Your task to perform on an android device: star an email in the gmail app Image 0: 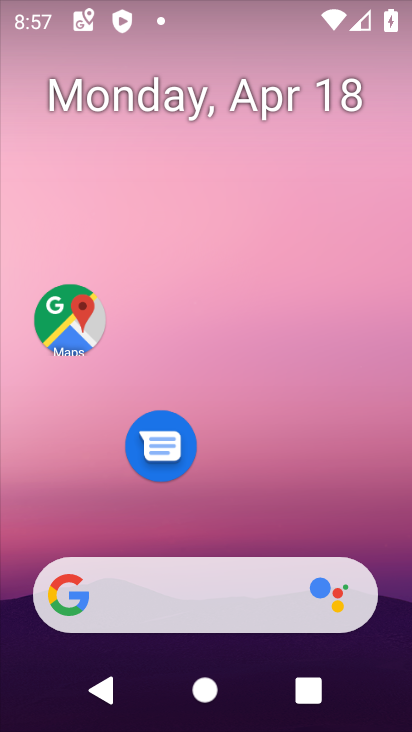
Step 0: drag from (217, 523) to (223, 0)
Your task to perform on an android device: star an email in the gmail app Image 1: 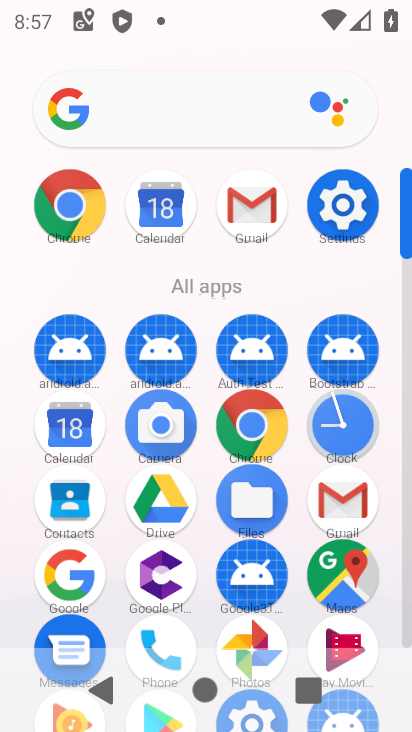
Step 1: click (347, 489)
Your task to perform on an android device: star an email in the gmail app Image 2: 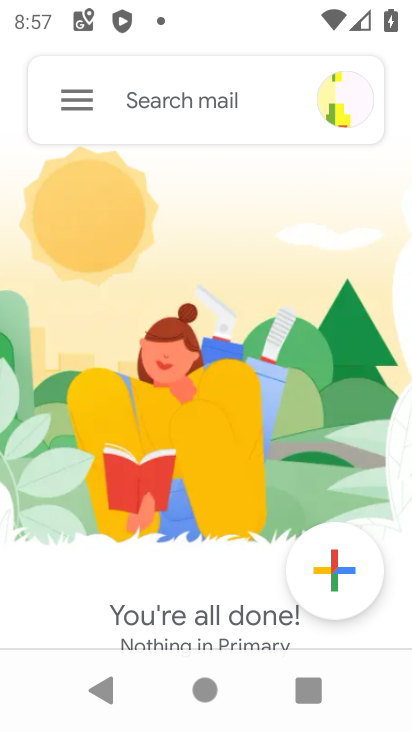
Step 2: click (69, 98)
Your task to perform on an android device: star an email in the gmail app Image 3: 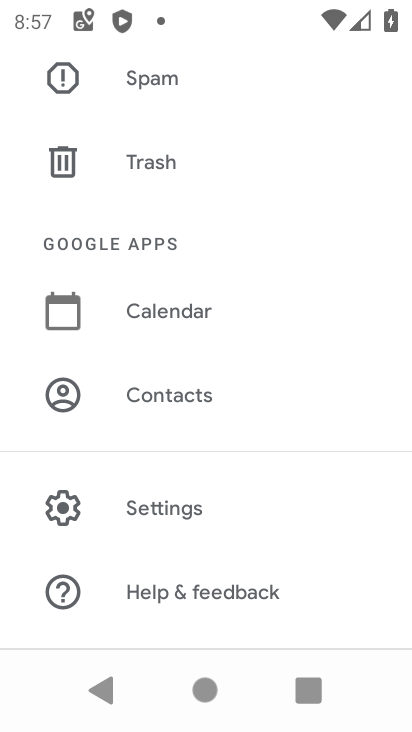
Step 3: drag from (153, 128) to (150, 395)
Your task to perform on an android device: star an email in the gmail app Image 4: 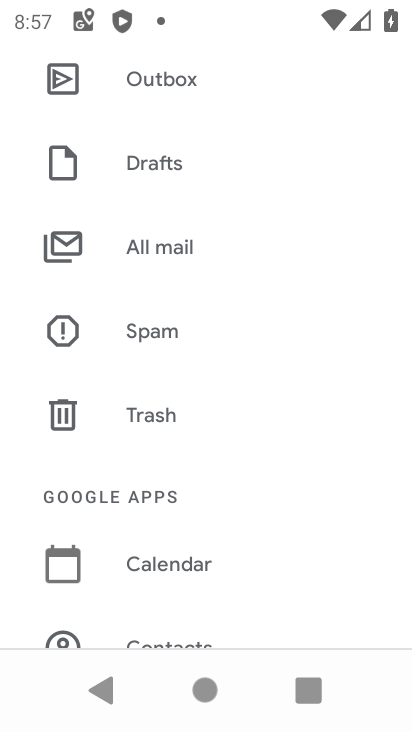
Step 4: click (104, 241)
Your task to perform on an android device: star an email in the gmail app Image 5: 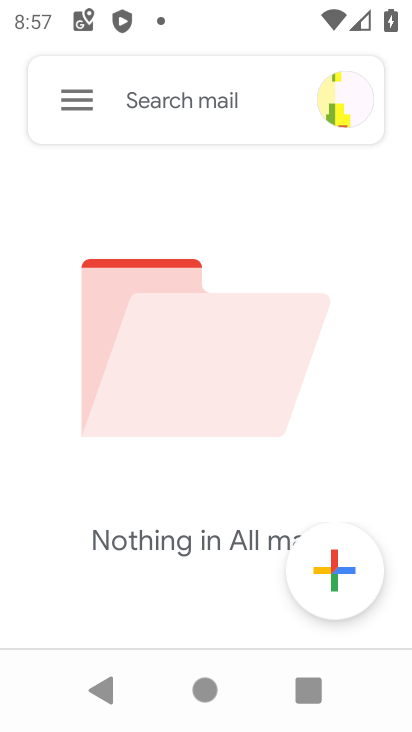
Step 5: task complete